Your task to perform on an android device: Open sound settings Image 0: 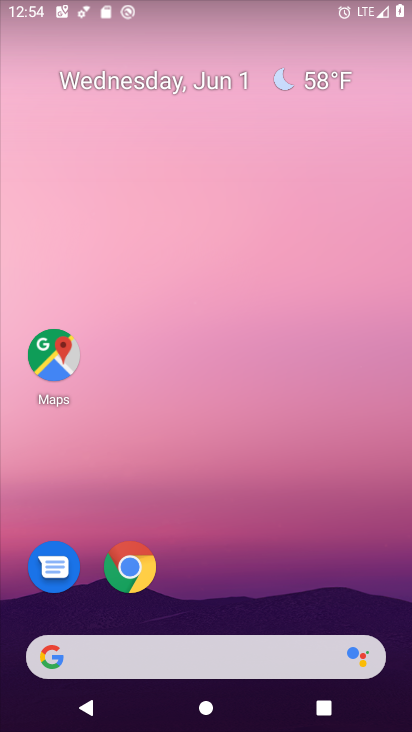
Step 0: drag from (227, 592) to (194, 26)
Your task to perform on an android device: Open sound settings Image 1: 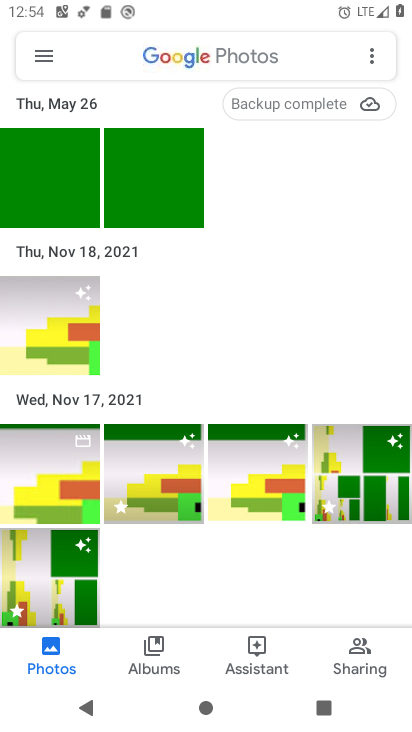
Step 1: press home button
Your task to perform on an android device: Open sound settings Image 2: 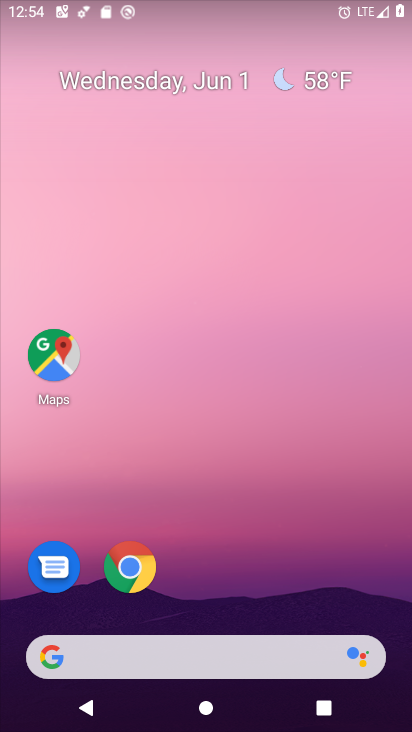
Step 2: drag from (237, 570) to (230, 64)
Your task to perform on an android device: Open sound settings Image 3: 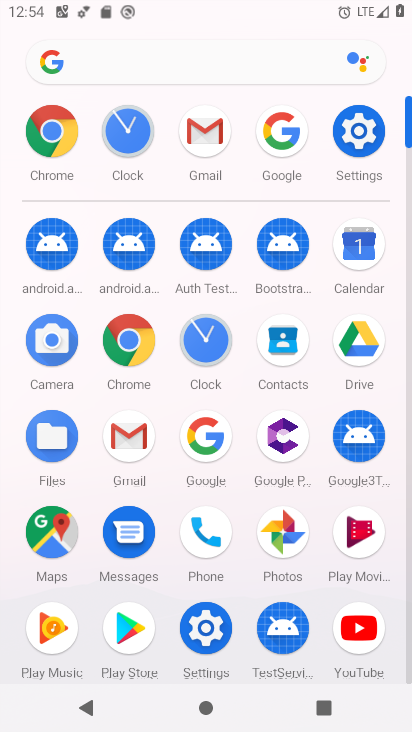
Step 3: click (351, 125)
Your task to perform on an android device: Open sound settings Image 4: 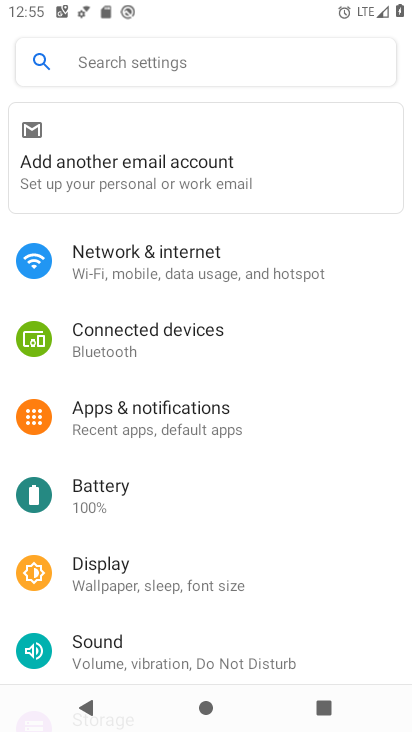
Step 4: click (143, 641)
Your task to perform on an android device: Open sound settings Image 5: 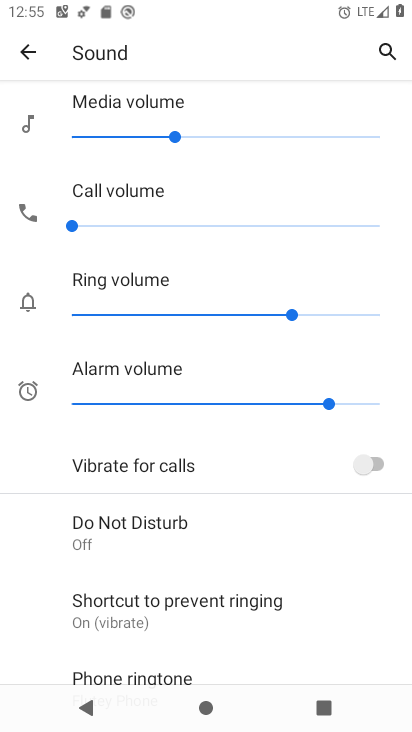
Step 5: task complete